Your task to perform on an android device: change alarm snooze length Image 0: 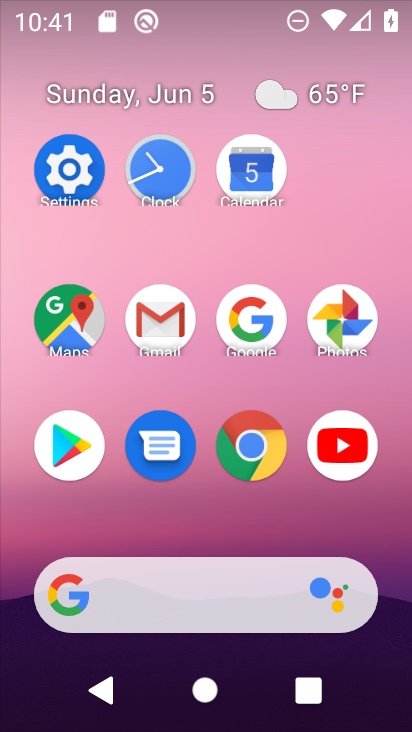
Step 0: click (158, 179)
Your task to perform on an android device: change alarm snooze length Image 1: 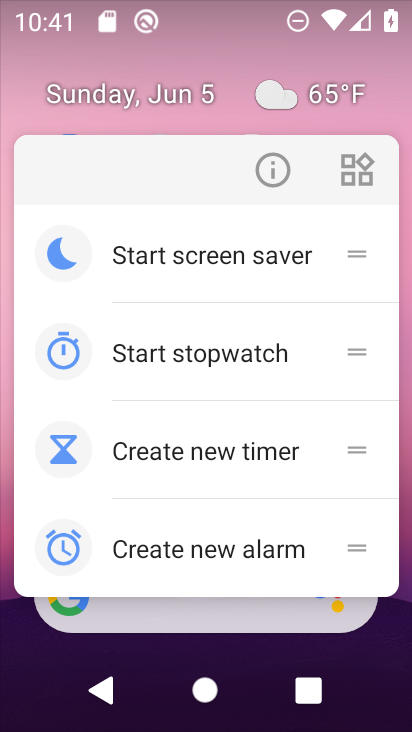
Step 1: click (400, 73)
Your task to perform on an android device: change alarm snooze length Image 2: 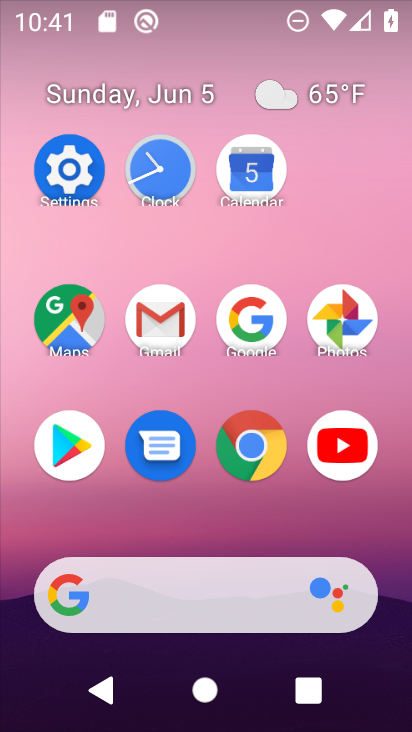
Step 2: click (179, 174)
Your task to perform on an android device: change alarm snooze length Image 3: 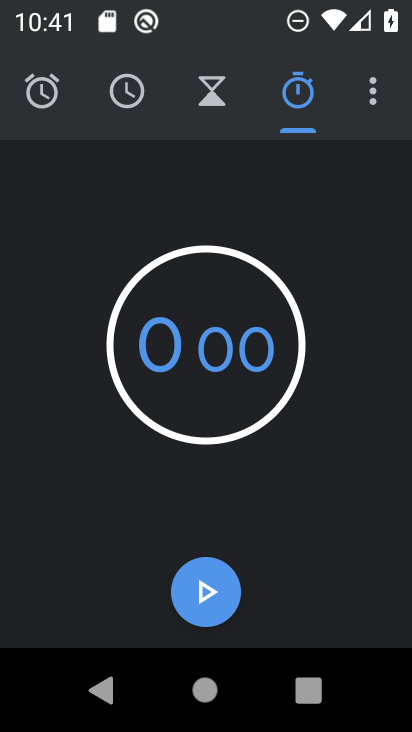
Step 3: click (388, 98)
Your task to perform on an android device: change alarm snooze length Image 4: 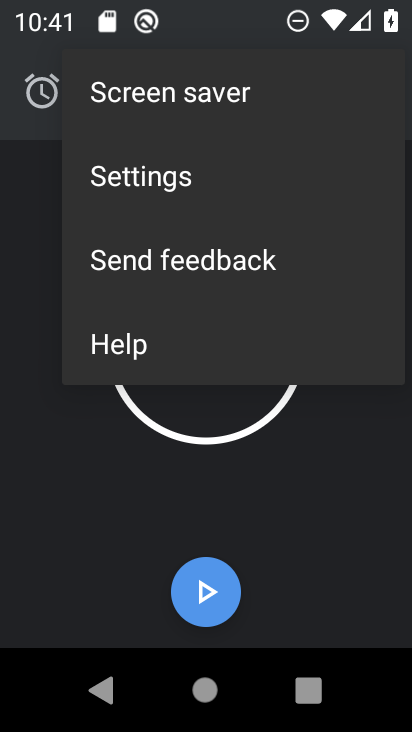
Step 4: click (189, 166)
Your task to perform on an android device: change alarm snooze length Image 5: 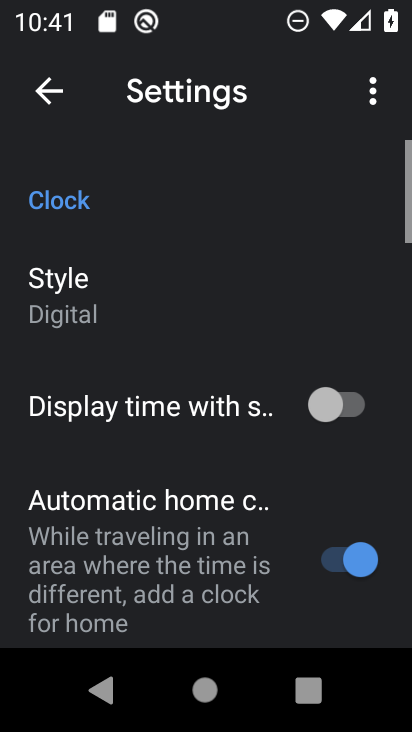
Step 5: drag from (191, 377) to (190, 159)
Your task to perform on an android device: change alarm snooze length Image 6: 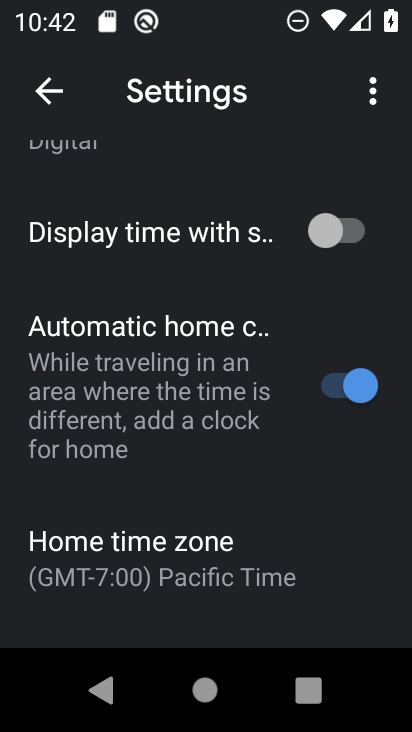
Step 6: drag from (238, 486) to (211, 252)
Your task to perform on an android device: change alarm snooze length Image 7: 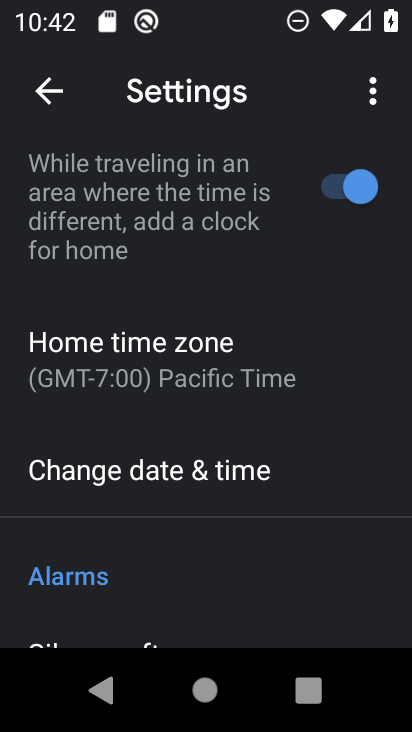
Step 7: drag from (224, 497) to (219, 290)
Your task to perform on an android device: change alarm snooze length Image 8: 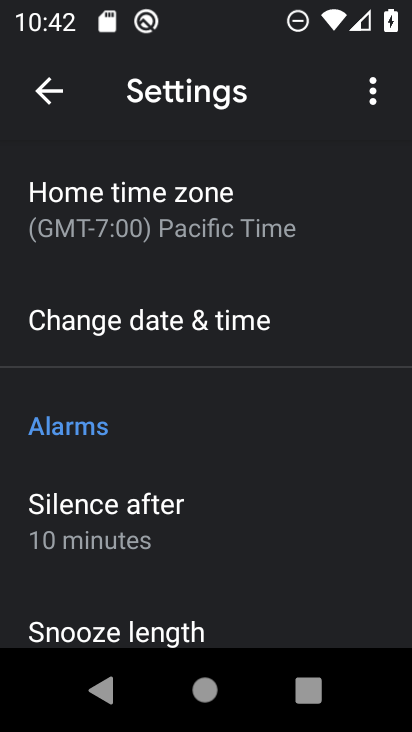
Step 8: drag from (230, 522) to (203, 203)
Your task to perform on an android device: change alarm snooze length Image 9: 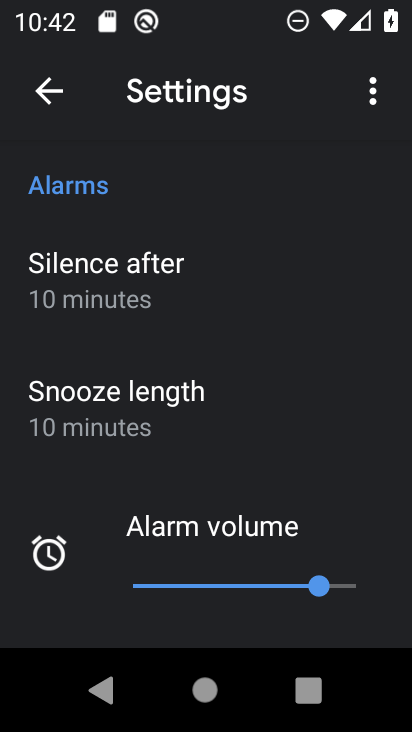
Step 9: click (199, 412)
Your task to perform on an android device: change alarm snooze length Image 10: 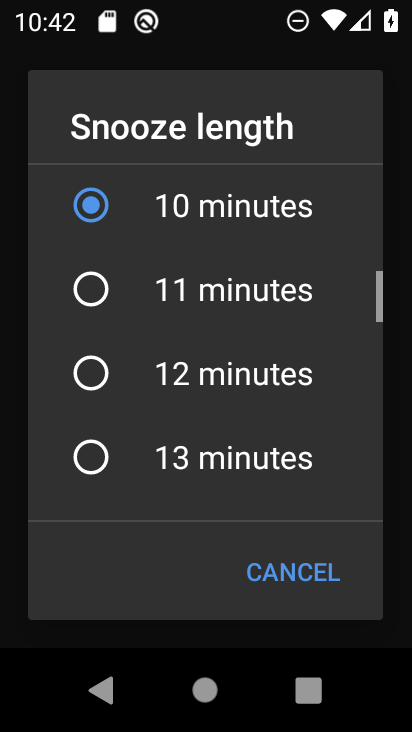
Step 10: click (193, 300)
Your task to perform on an android device: change alarm snooze length Image 11: 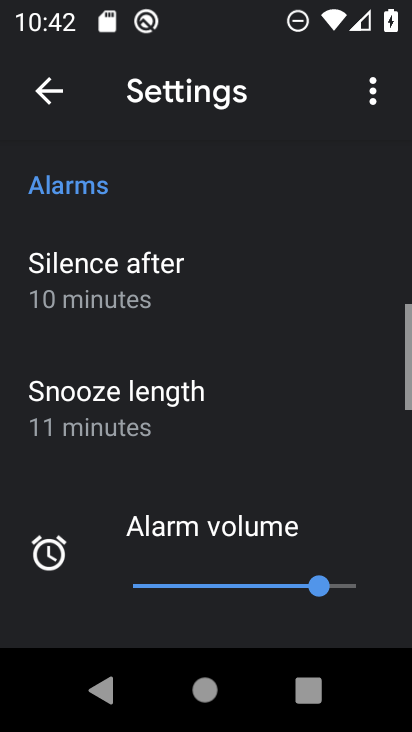
Step 11: task complete